Your task to perform on an android device: Go to Google Image 0: 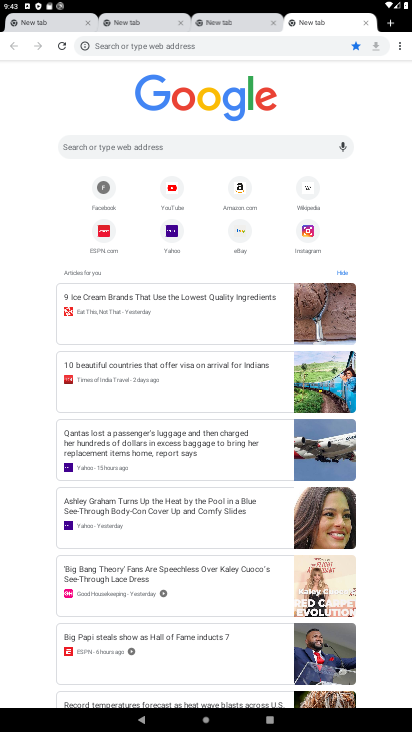
Step 0: press home button
Your task to perform on an android device: Go to Google Image 1: 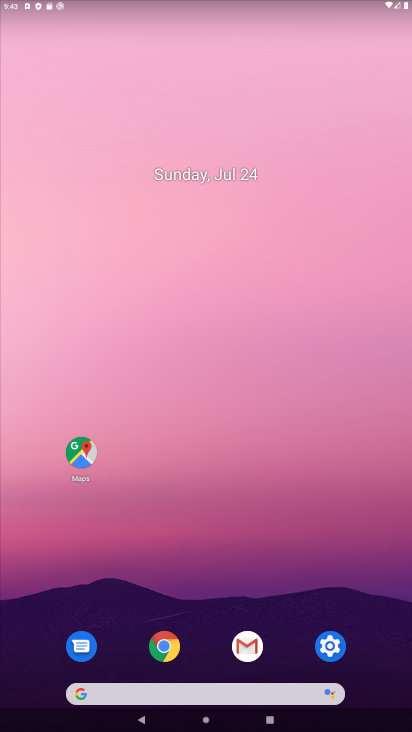
Step 1: click (85, 689)
Your task to perform on an android device: Go to Google Image 2: 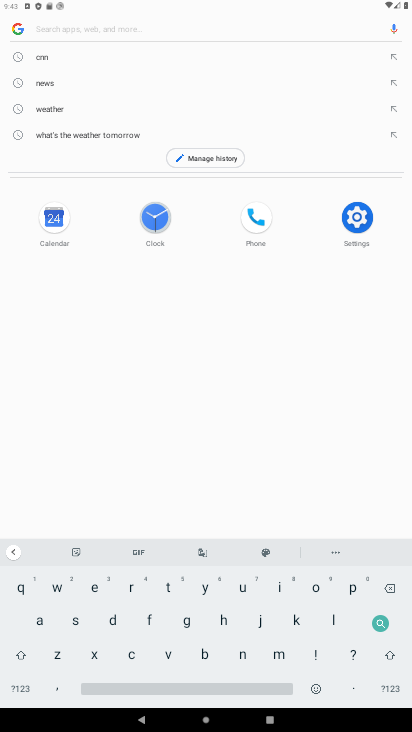
Step 2: click (21, 31)
Your task to perform on an android device: Go to Google Image 3: 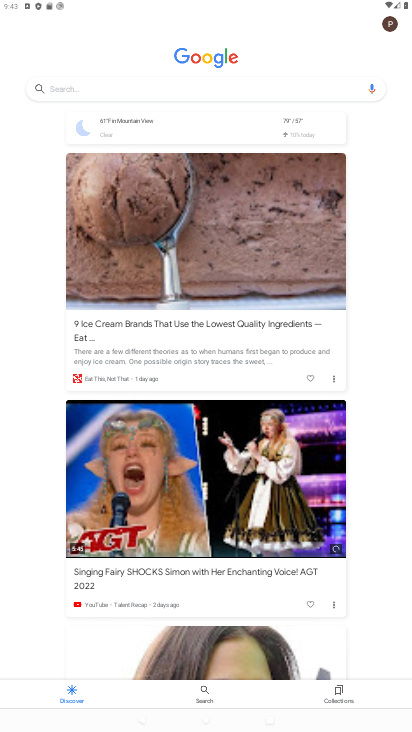
Step 3: task complete